Your task to perform on an android device: Open CNN.com Image 0: 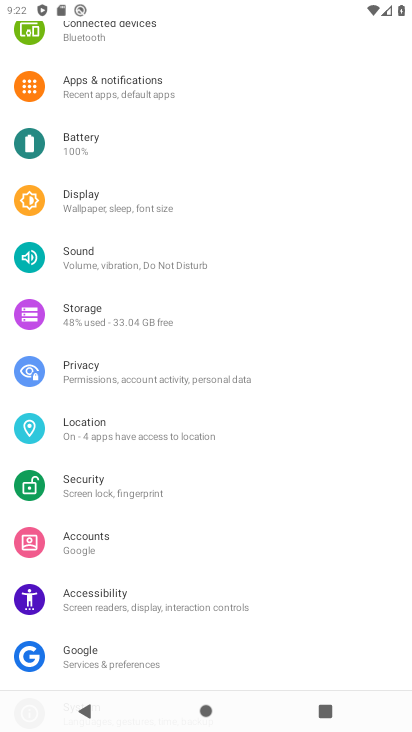
Step 0: press home button
Your task to perform on an android device: Open CNN.com Image 1: 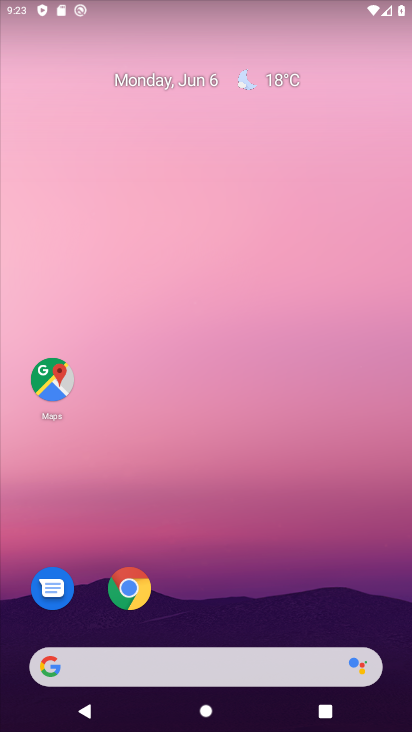
Step 1: click (119, 582)
Your task to perform on an android device: Open CNN.com Image 2: 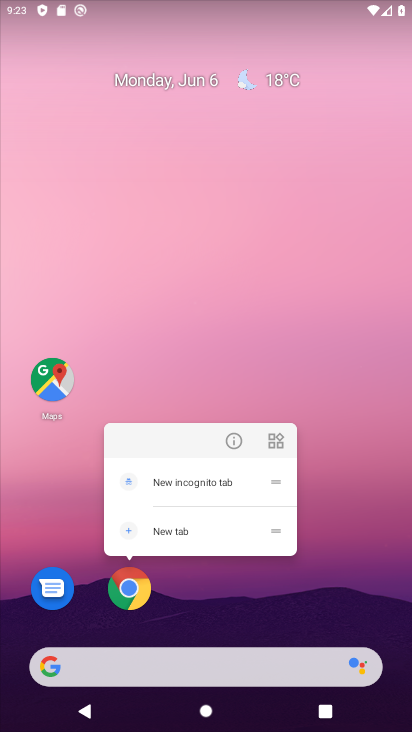
Step 2: click (131, 582)
Your task to perform on an android device: Open CNN.com Image 3: 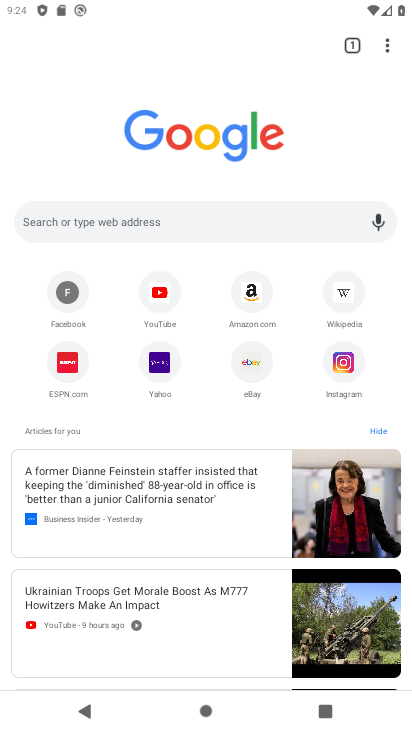
Step 3: click (152, 216)
Your task to perform on an android device: Open CNN.com Image 4: 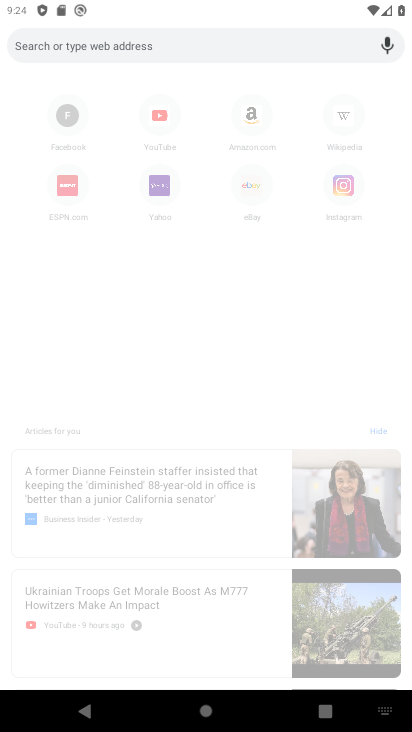
Step 4: type "CNN.com"
Your task to perform on an android device: Open CNN.com Image 5: 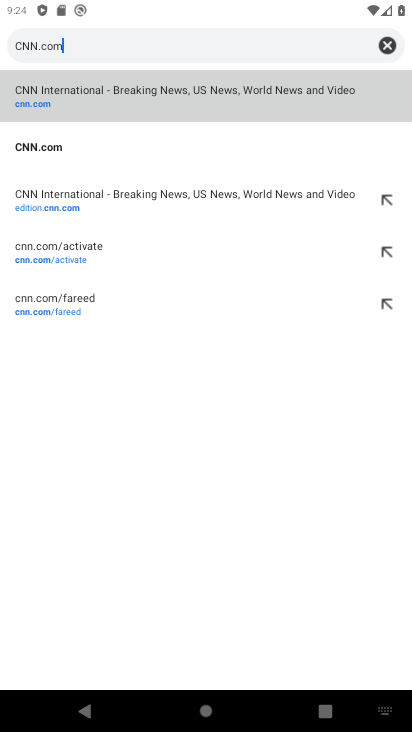
Step 5: click (109, 87)
Your task to perform on an android device: Open CNN.com Image 6: 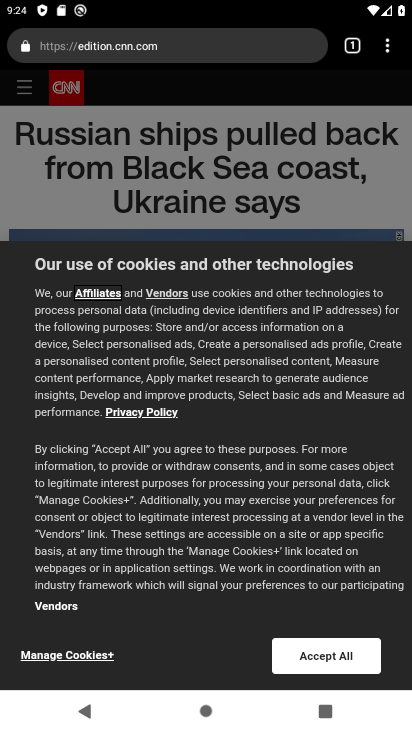
Step 6: task complete